Your task to perform on an android device: check storage Image 0: 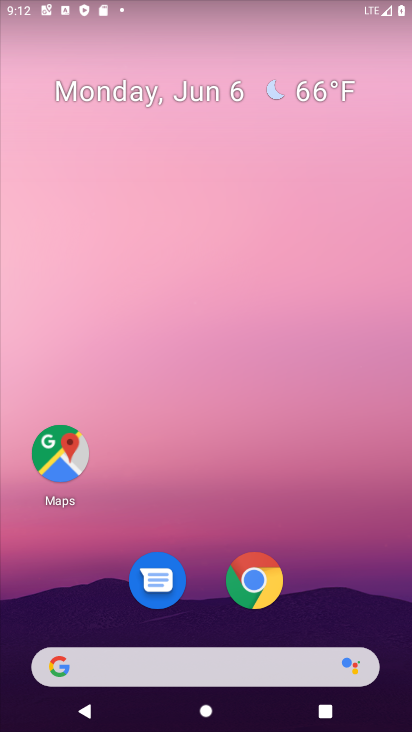
Step 0: drag from (359, 501) to (17, 11)
Your task to perform on an android device: check storage Image 1: 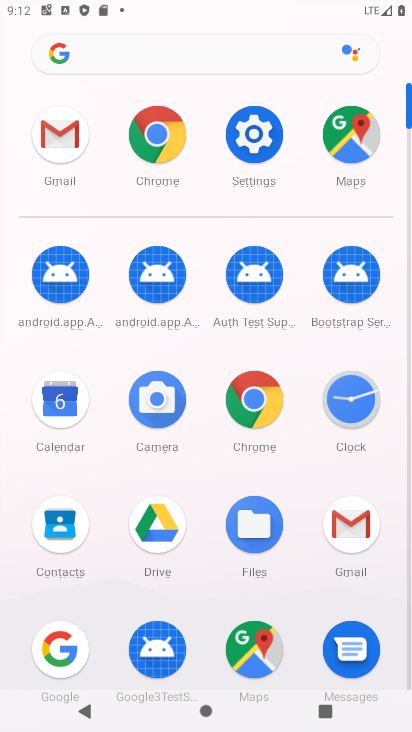
Step 1: click (268, 138)
Your task to perform on an android device: check storage Image 2: 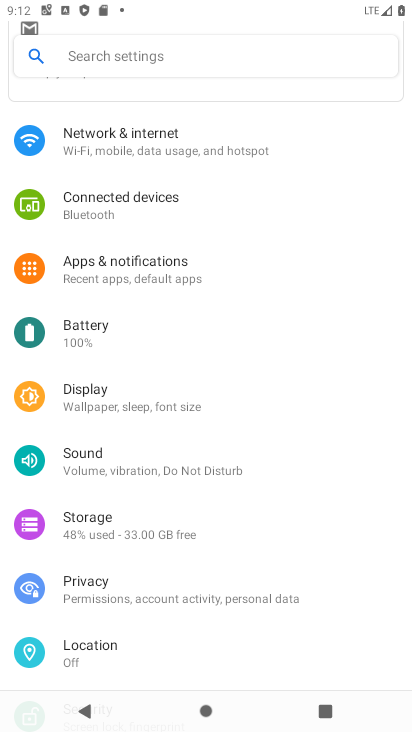
Step 2: click (150, 520)
Your task to perform on an android device: check storage Image 3: 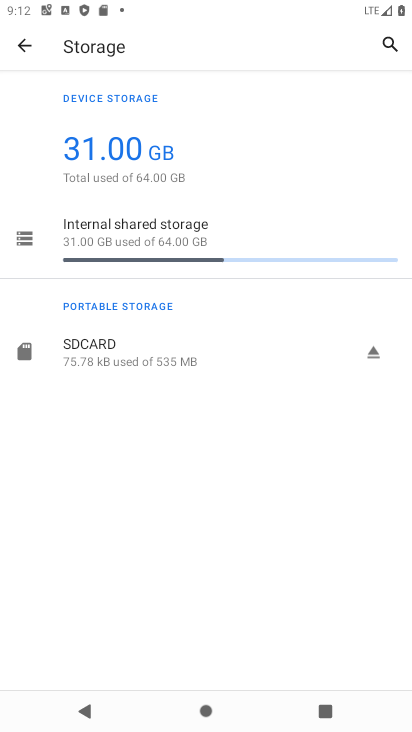
Step 3: click (154, 243)
Your task to perform on an android device: check storage Image 4: 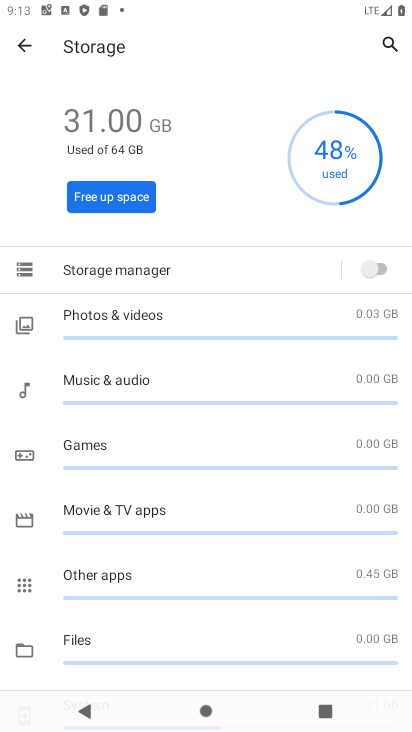
Step 4: task complete